Your task to perform on an android device: uninstall "McDonald's" Image 0: 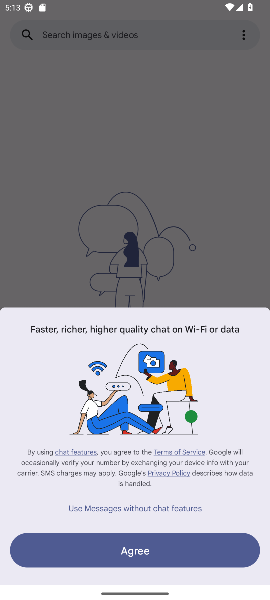
Step 0: press home button
Your task to perform on an android device: uninstall "McDonald's" Image 1: 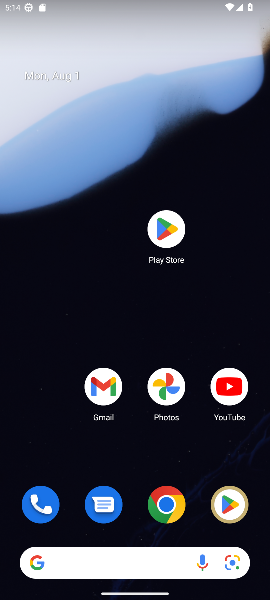
Step 1: click (169, 229)
Your task to perform on an android device: uninstall "McDonald's" Image 2: 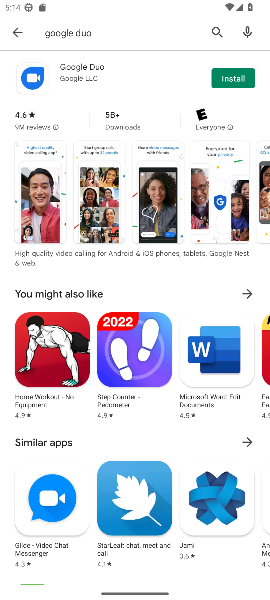
Step 2: click (211, 25)
Your task to perform on an android device: uninstall "McDonald's" Image 3: 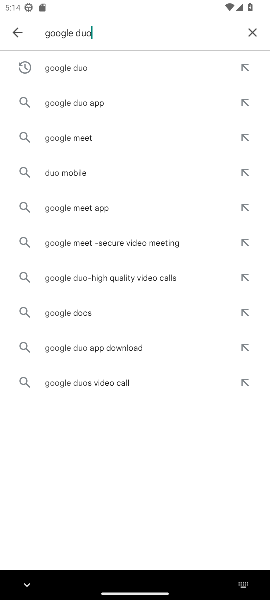
Step 3: click (250, 31)
Your task to perform on an android device: uninstall "McDonald's" Image 4: 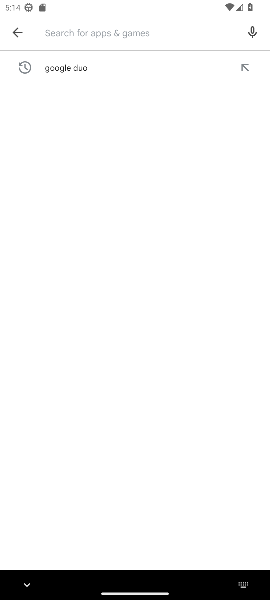
Step 4: type "McDonald's"
Your task to perform on an android device: uninstall "McDonald's" Image 5: 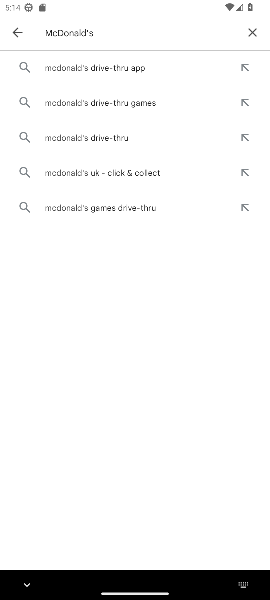
Step 5: click (120, 66)
Your task to perform on an android device: uninstall "McDonald's" Image 6: 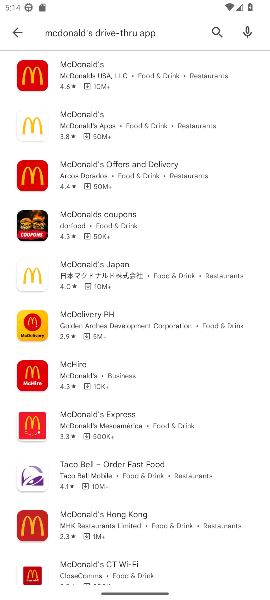
Step 6: click (107, 79)
Your task to perform on an android device: uninstall "McDonald's" Image 7: 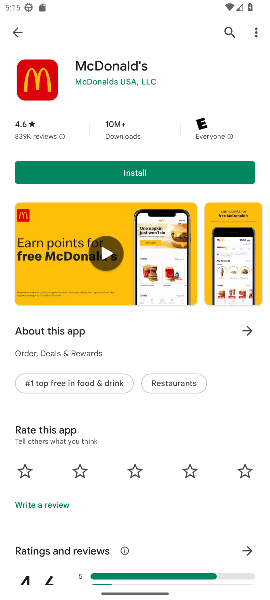
Step 7: task complete